Your task to perform on an android device: turn on location history Image 0: 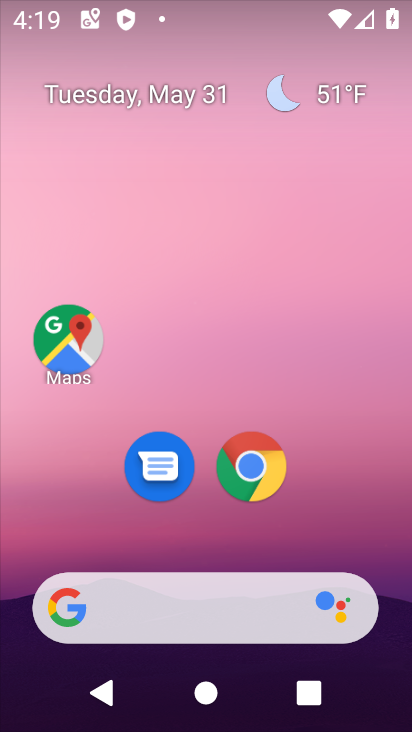
Step 0: press home button
Your task to perform on an android device: turn on location history Image 1: 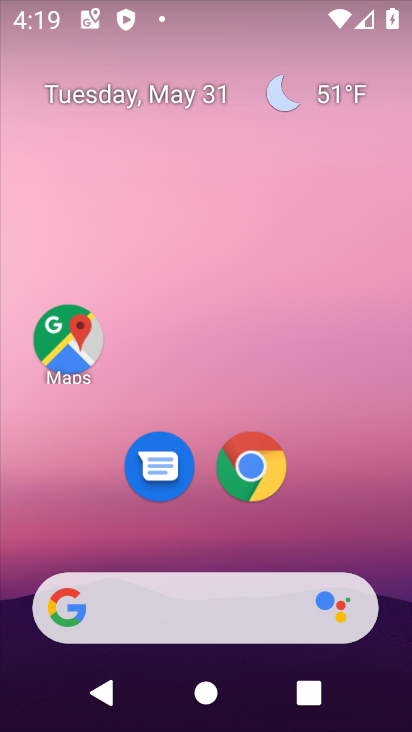
Step 1: drag from (209, 552) to (265, 74)
Your task to perform on an android device: turn on location history Image 2: 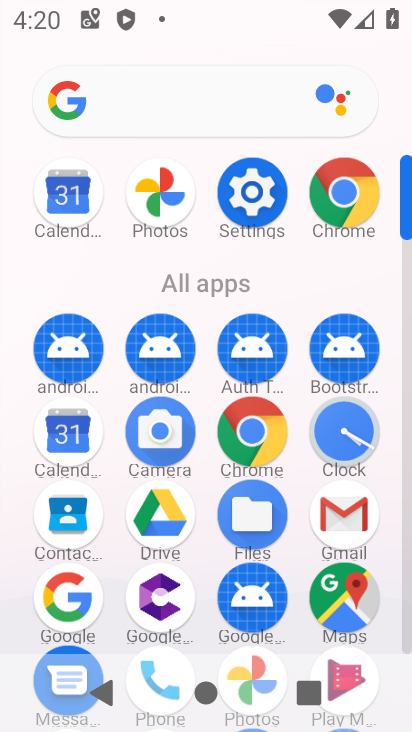
Step 2: click (248, 188)
Your task to perform on an android device: turn on location history Image 3: 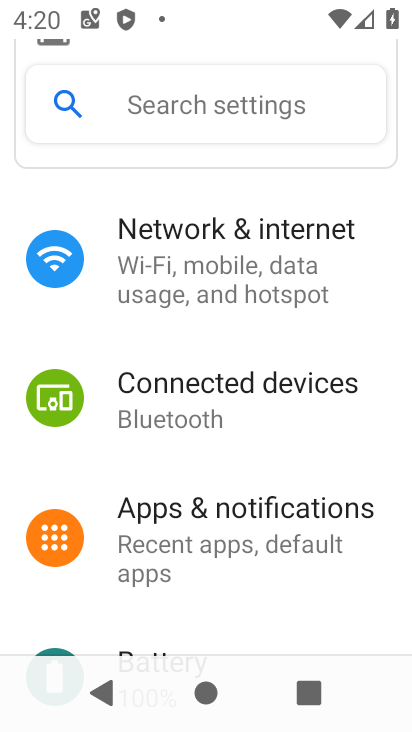
Step 3: drag from (230, 605) to (237, 53)
Your task to perform on an android device: turn on location history Image 4: 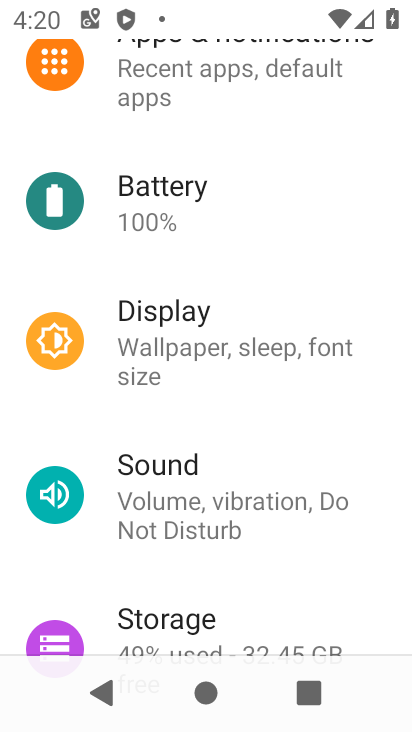
Step 4: drag from (198, 652) to (239, 75)
Your task to perform on an android device: turn on location history Image 5: 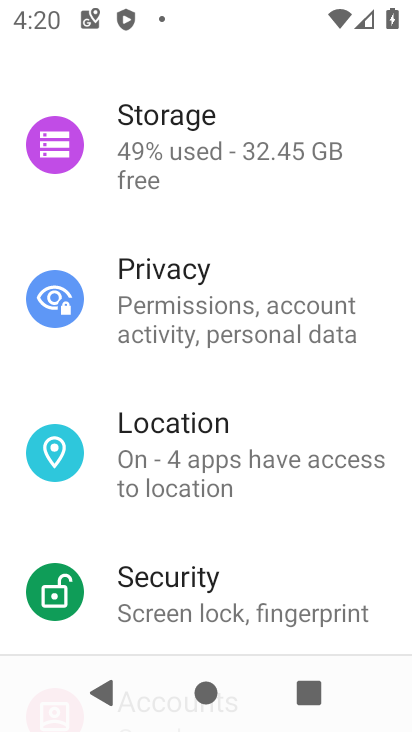
Step 5: click (226, 426)
Your task to perform on an android device: turn on location history Image 6: 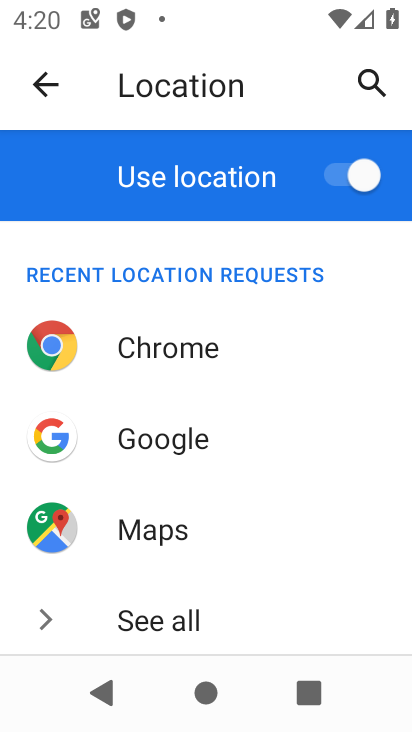
Step 6: drag from (224, 591) to (254, 150)
Your task to perform on an android device: turn on location history Image 7: 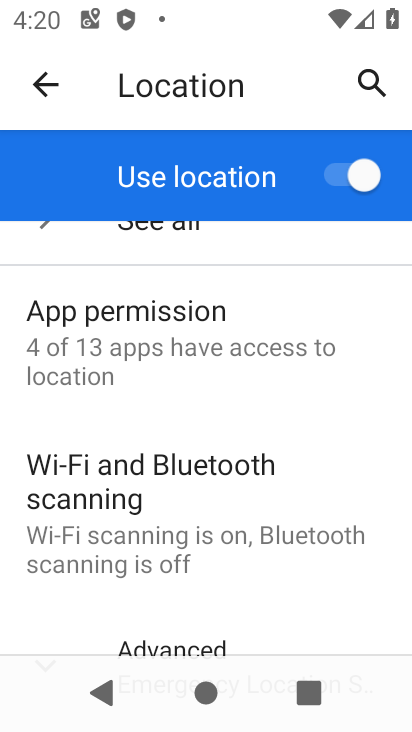
Step 7: drag from (169, 570) to (193, 208)
Your task to perform on an android device: turn on location history Image 8: 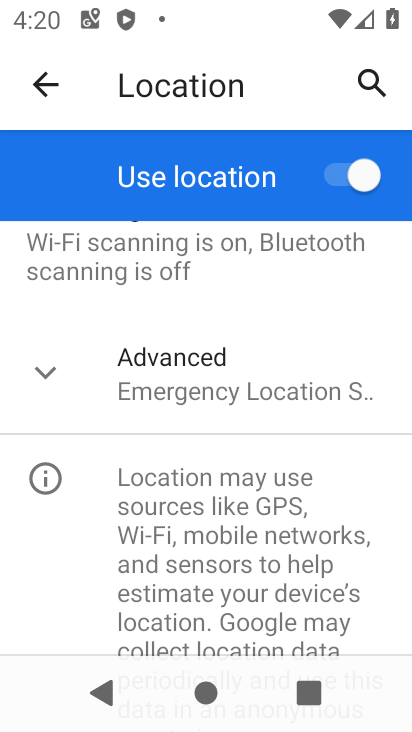
Step 8: click (46, 361)
Your task to perform on an android device: turn on location history Image 9: 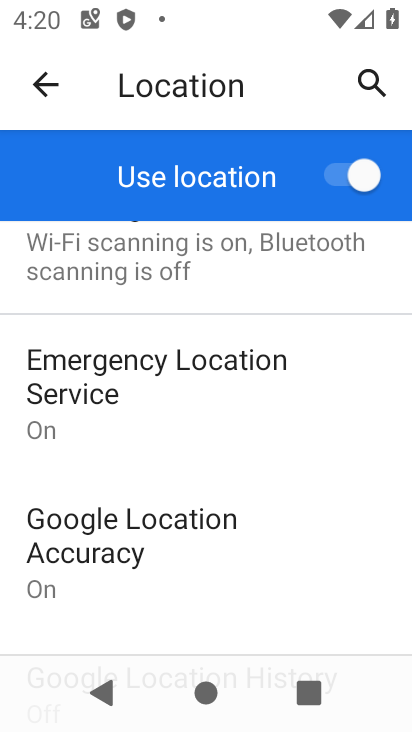
Step 9: drag from (191, 559) to (215, 309)
Your task to perform on an android device: turn on location history Image 10: 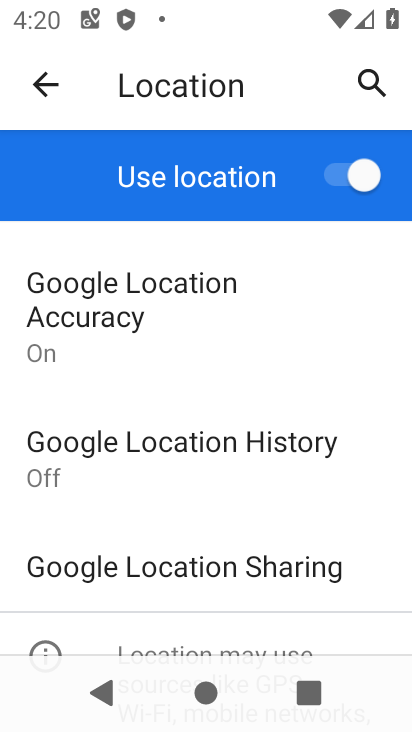
Step 10: click (122, 470)
Your task to perform on an android device: turn on location history Image 11: 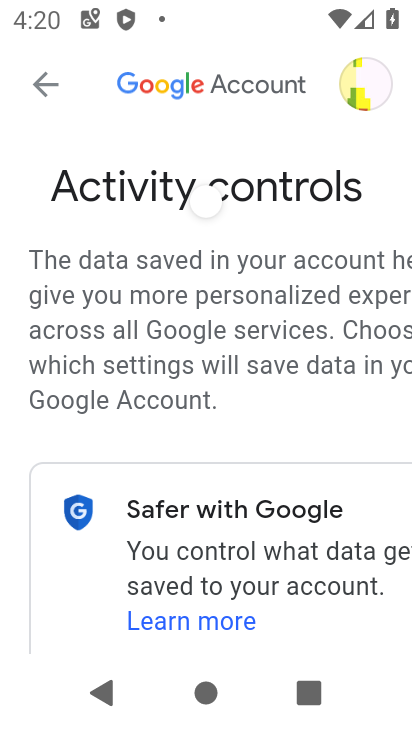
Step 11: task complete